Your task to perform on an android device: turn on the 24-hour format for clock Image 0: 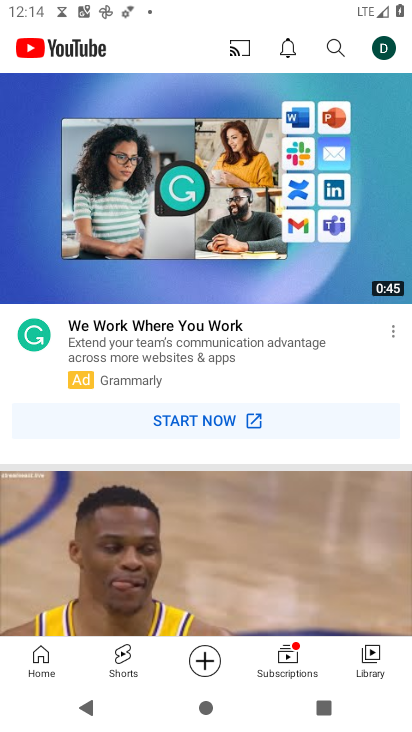
Step 0: press home button
Your task to perform on an android device: turn on the 24-hour format for clock Image 1: 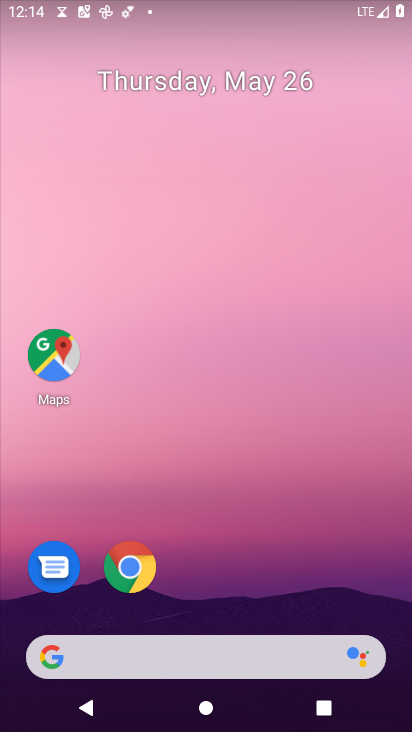
Step 1: drag from (216, 474) to (178, 133)
Your task to perform on an android device: turn on the 24-hour format for clock Image 2: 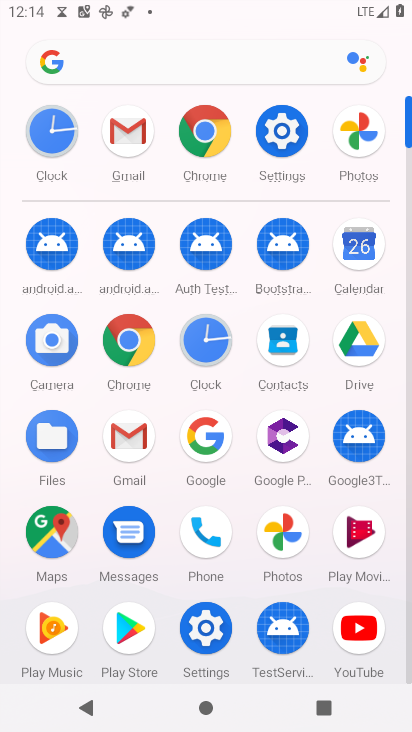
Step 2: click (278, 124)
Your task to perform on an android device: turn on the 24-hour format for clock Image 3: 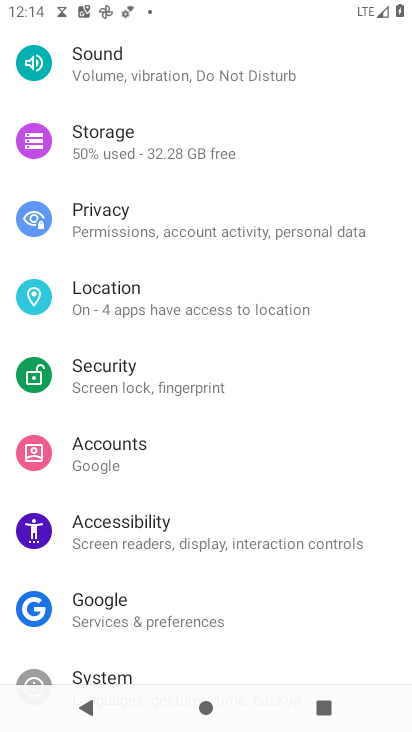
Step 3: press home button
Your task to perform on an android device: turn on the 24-hour format for clock Image 4: 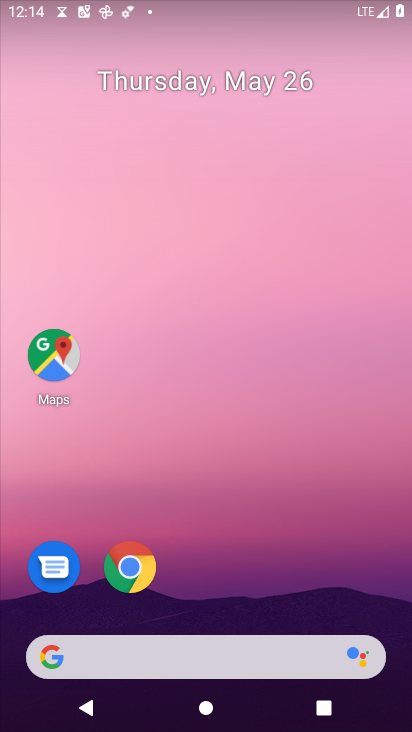
Step 4: drag from (226, 559) to (145, 4)
Your task to perform on an android device: turn on the 24-hour format for clock Image 5: 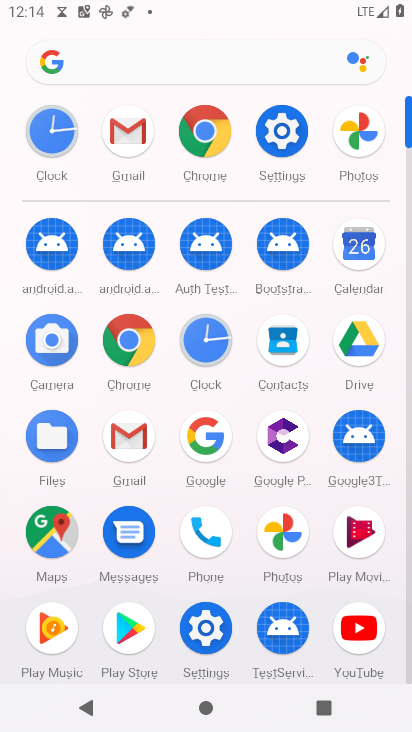
Step 5: click (41, 144)
Your task to perform on an android device: turn on the 24-hour format for clock Image 6: 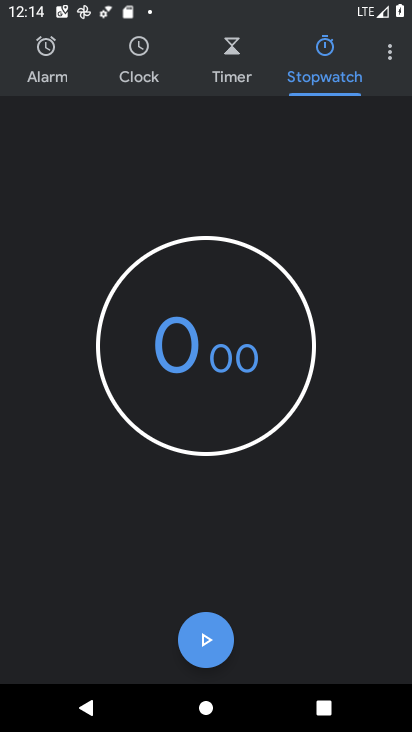
Step 6: click (389, 47)
Your task to perform on an android device: turn on the 24-hour format for clock Image 7: 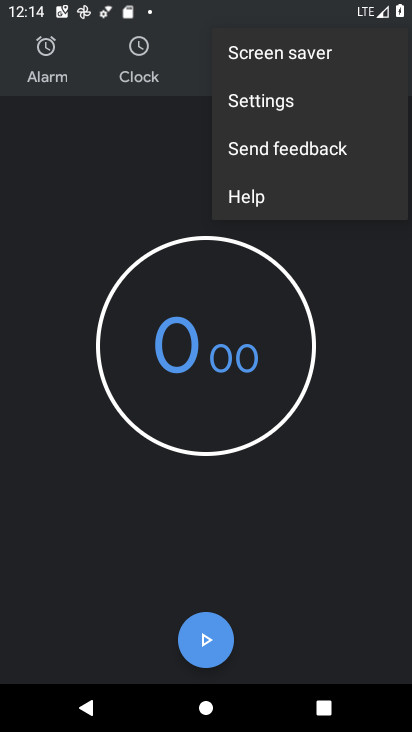
Step 7: click (318, 99)
Your task to perform on an android device: turn on the 24-hour format for clock Image 8: 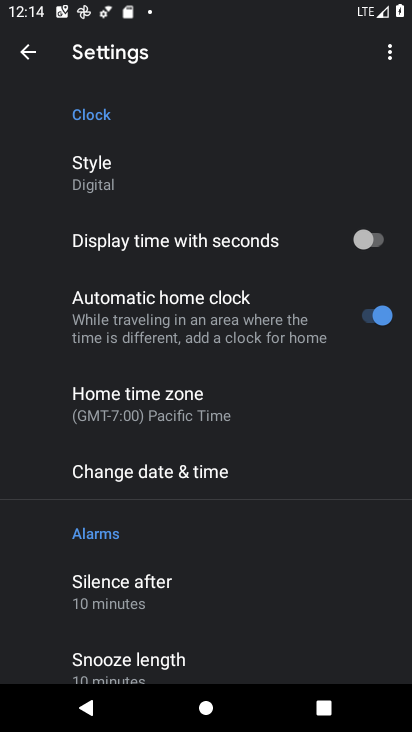
Step 8: drag from (199, 534) to (196, 158)
Your task to perform on an android device: turn on the 24-hour format for clock Image 9: 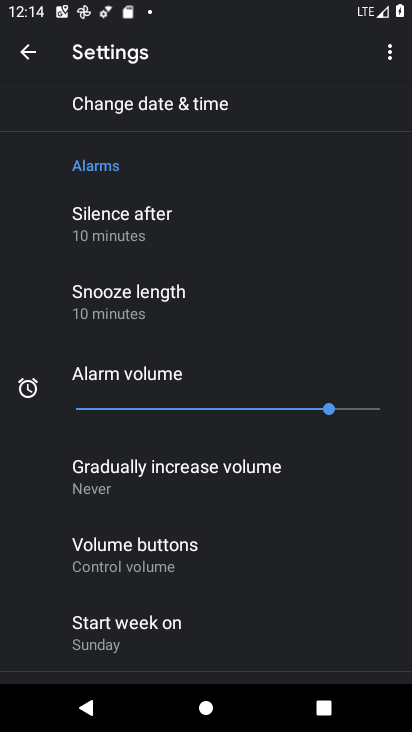
Step 9: drag from (184, 518) to (179, 145)
Your task to perform on an android device: turn on the 24-hour format for clock Image 10: 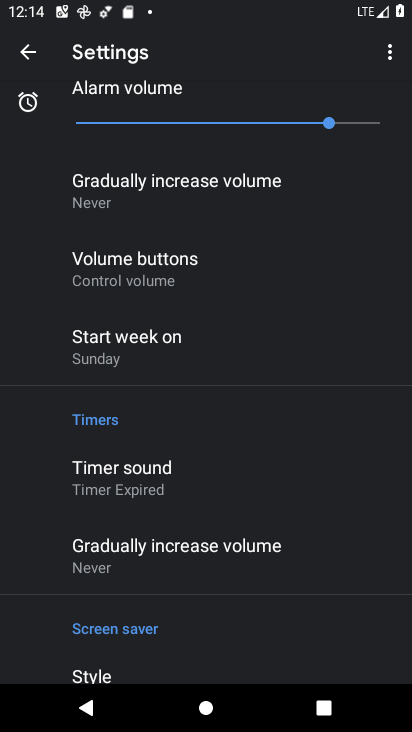
Step 10: drag from (201, 490) to (242, 155)
Your task to perform on an android device: turn on the 24-hour format for clock Image 11: 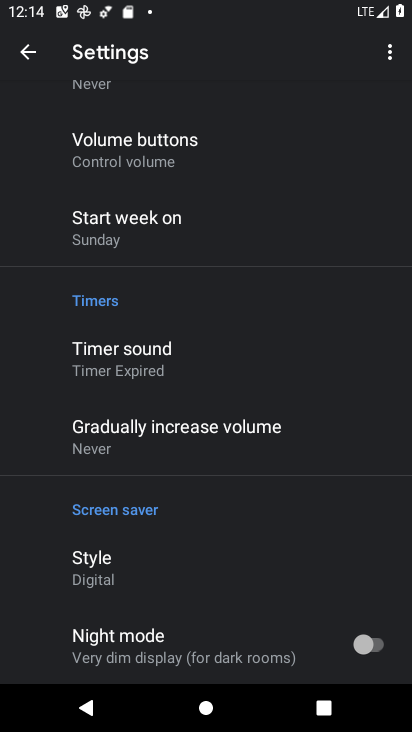
Step 11: drag from (193, 608) to (216, 160)
Your task to perform on an android device: turn on the 24-hour format for clock Image 12: 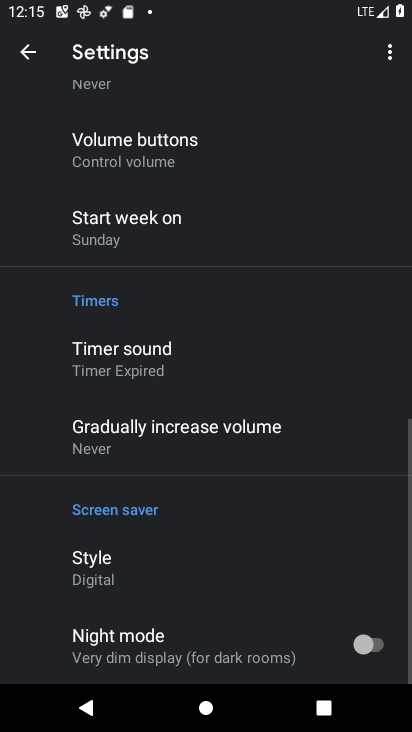
Step 12: drag from (241, 138) to (280, 573)
Your task to perform on an android device: turn on the 24-hour format for clock Image 13: 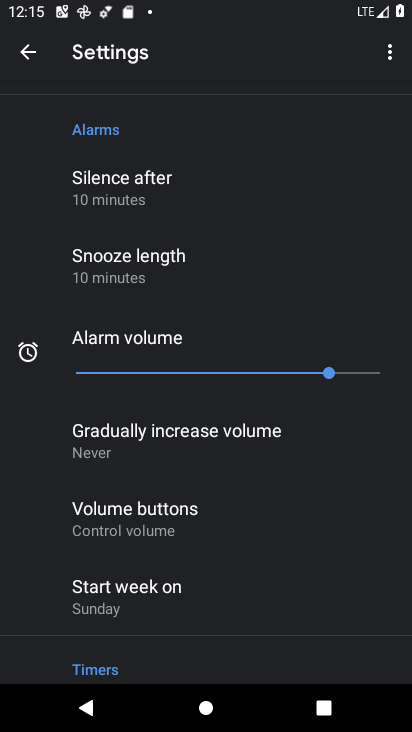
Step 13: drag from (188, 187) to (206, 525)
Your task to perform on an android device: turn on the 24-hour format for clock Image 14: 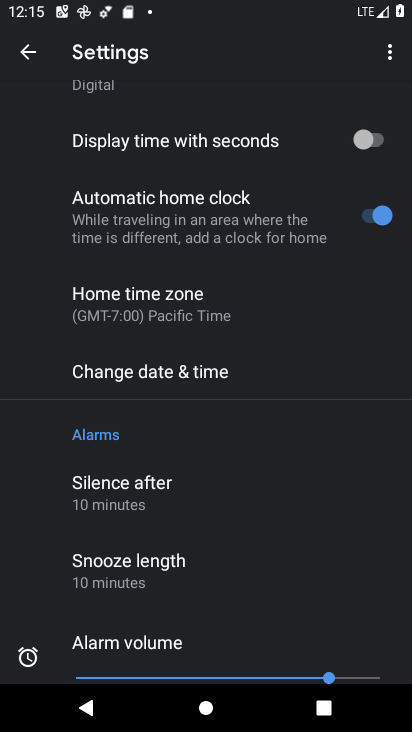
Step 14: click (177, 374)
Your task to perform on an android device: turn on the 24-hour format for clock Image 15: 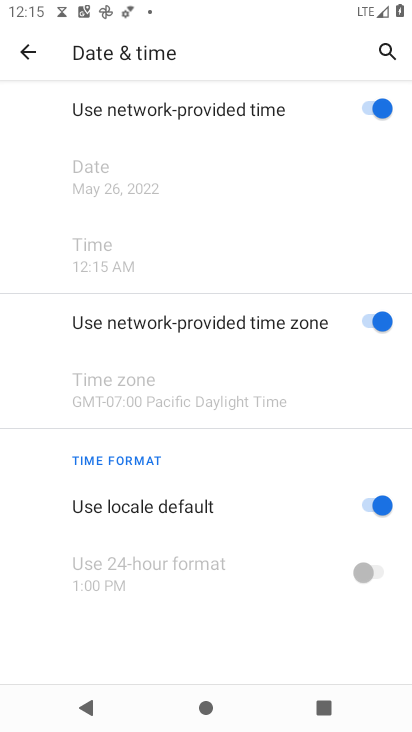
Step 15: click (376, 499)
Your task to perform on an android device: turn on the 24-hour format for clock Image 16: 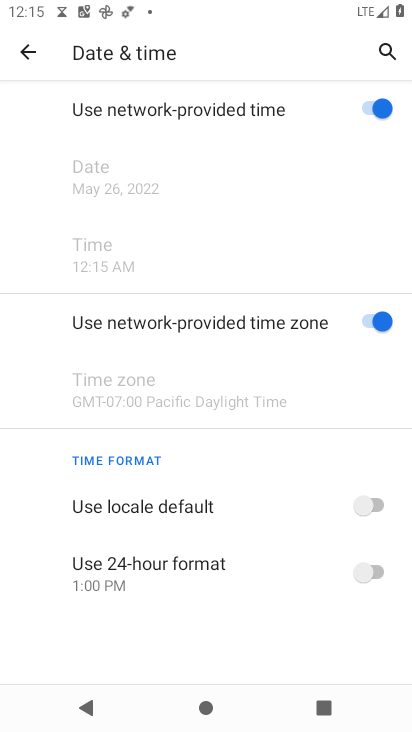
Step 16: click (354, 567)
Your task to perform on an android device: turn on the 24-hour format for clock Image 17: 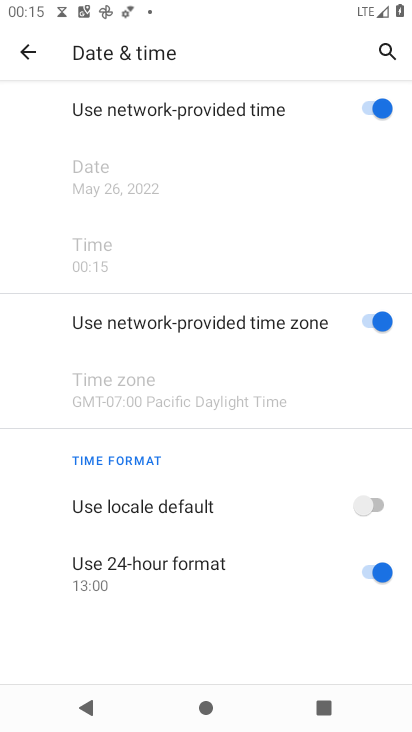
Step 17: task complete